Your task to perform on an android device: Go to privacy settings Image 0: 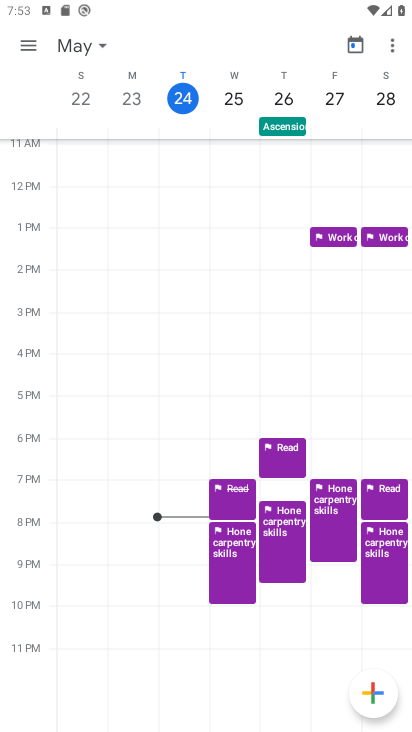
Step 0: press home button
Your task to perform on an android device: Go to privacy settings Image 1: 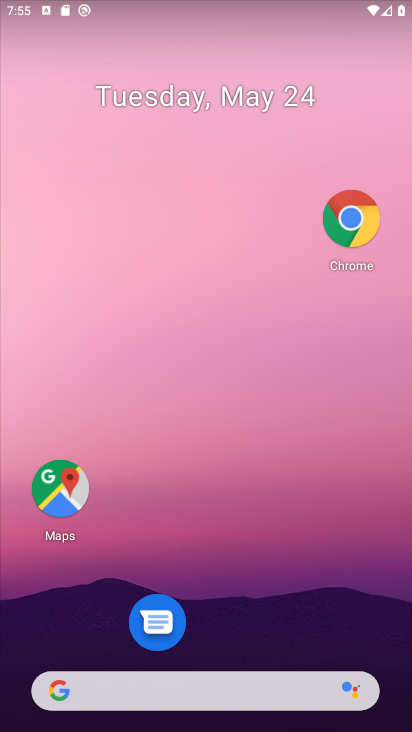
Step 1: drag from (267, 728) to (337, 311)
Your task to perform on an android device: Go to privacy settings Image 2: 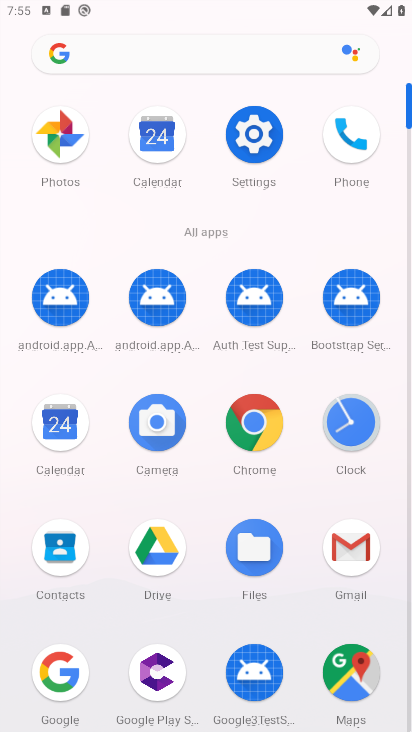
Step 2: click (266, 154)
Your task to perform on an android device: Go to privacy settings Image 3: 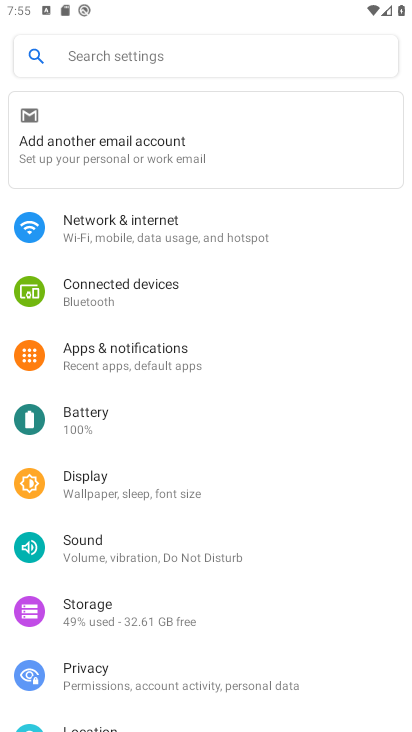
Step 3: click (91, 662)
Your task to perform on an android device: Go to privacy settings Image 4: 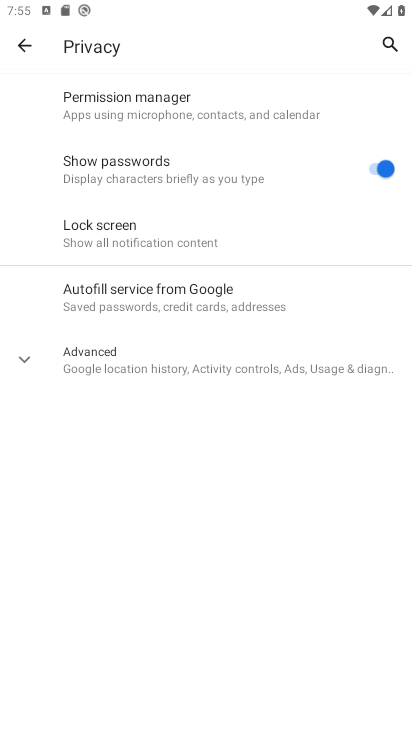
Step 4: task complete